Your task to perform on an android device: add a contact in the contacts app Image 0: 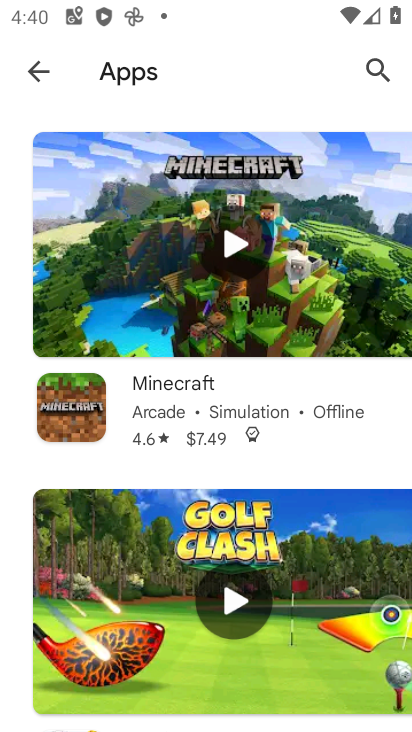
Step 0: press home button
Your task to perform on an android device: add a contact in the contacts app Image 1: 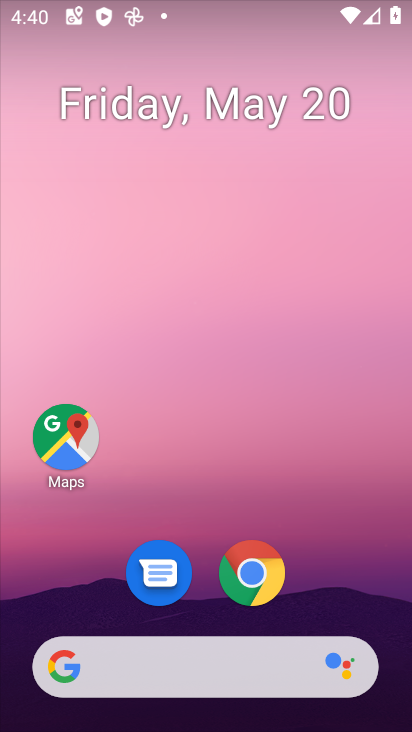
Step 1: drag from (387, 622) to (279, 127)
Your task to perform on an android device: add a contact in the contacts app Image 2: 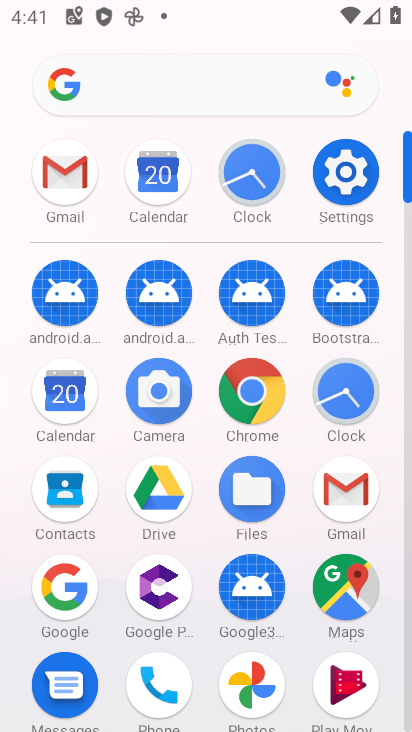
Step 2: click (408, 688)
Your task to perform on an android device: add a contact in the contacts app Image 3: 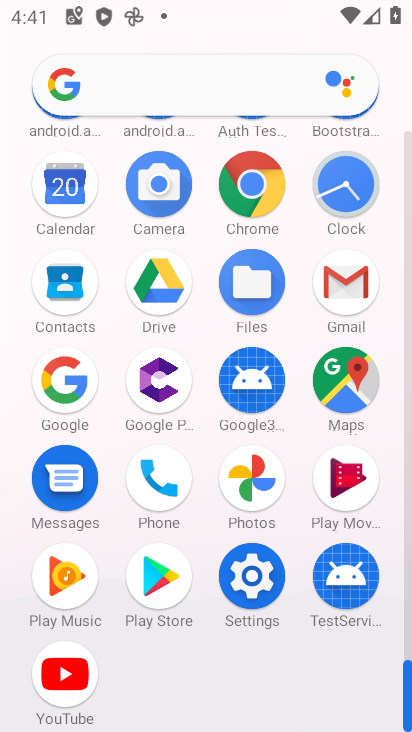
Step 3: click (67, 279)
Your task to perform on an android device: add a contact in the contacts app Image 4: 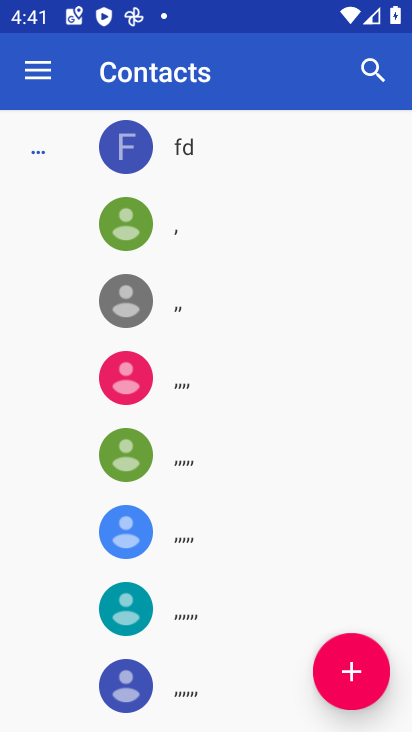
Step 4: click (351, 669)
Your task to perform on an android device: add a contact in the contacts app Image 5: 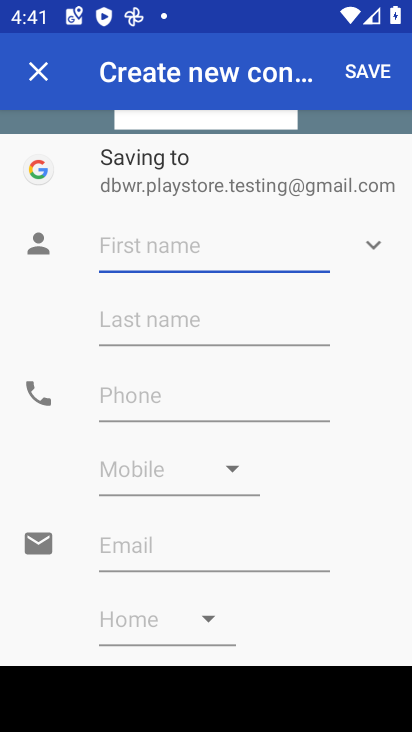
Step 5: type "kfdsfvvbnnt"
Your task to perform on an android device: add a contact in the contacts app Image 6: 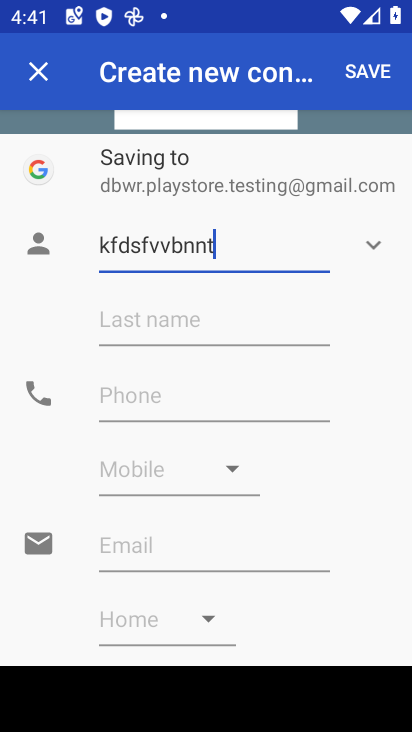
Step 6: click (122, 404)
Your task to perform on an android device: add a contact in the contacts app Image 7: 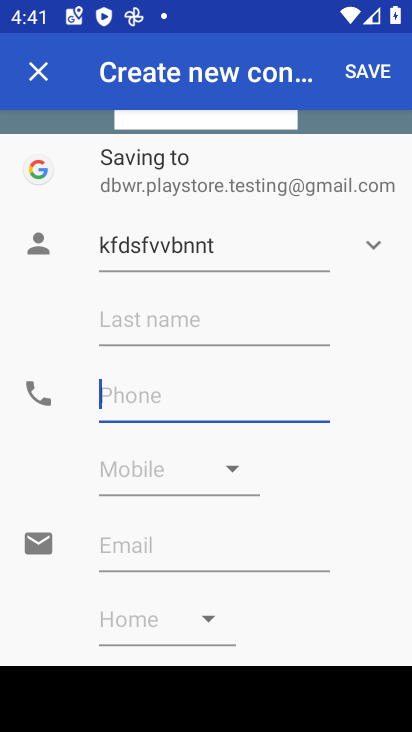
Step 7: type "980043556"
Your task to perform on an android device: add a contact in the contacts app Image 8: 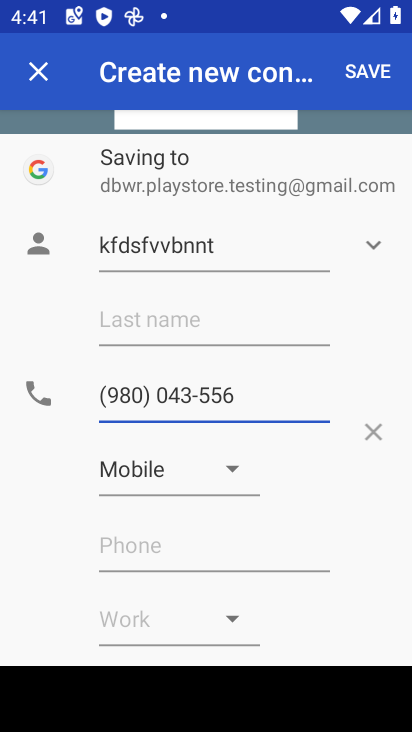
Step 8: click (233, 469)
Your task to perform on an android device: add a contact in the contacts app Image 9: 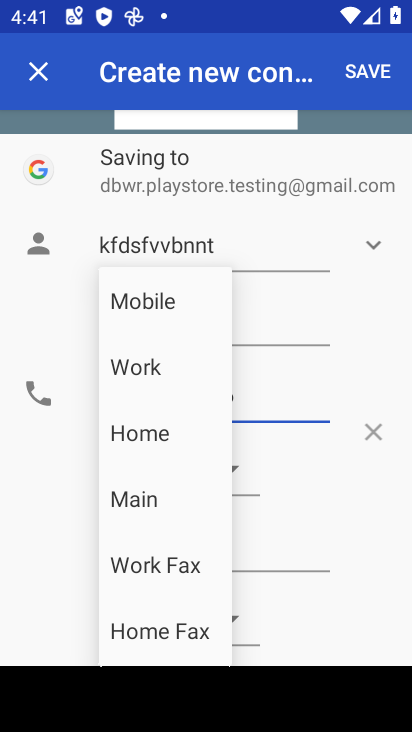
Step 9: click (125, 374)
Your task to perform on an android device: add a contact in the contacts app Image 10: 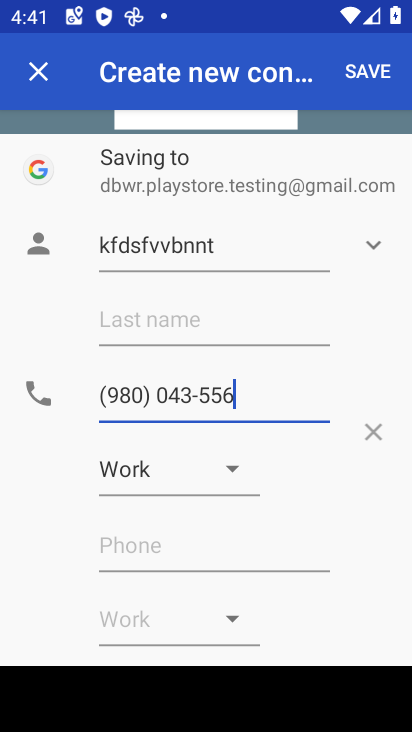
Step 10: click (367, 62)
Your task to perform on an android device: add a contact in the contacts app Image 11: 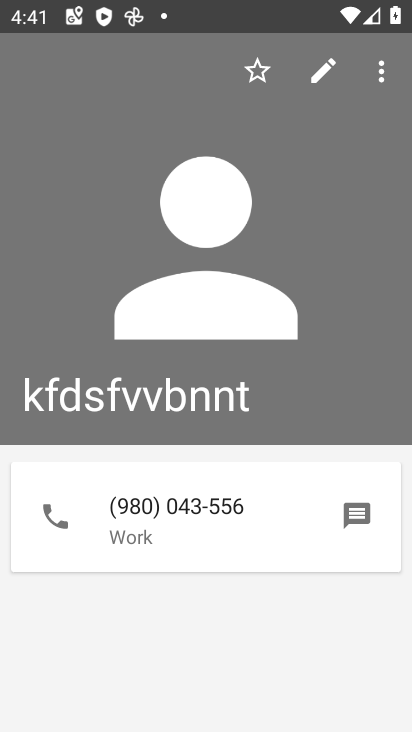
Step 11: task complete